Your task to perform on an android device: turn on showing notifications on the lock screen Image 0: 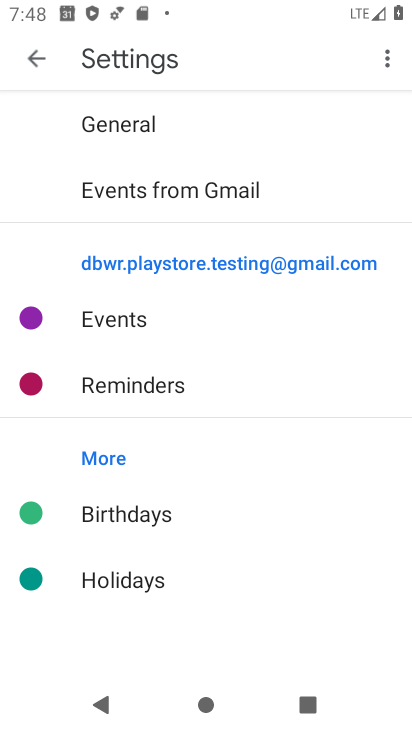
Step 0: press home button
Your task to perform on an android device: turn on showing notifications on the lock screen Image 1: 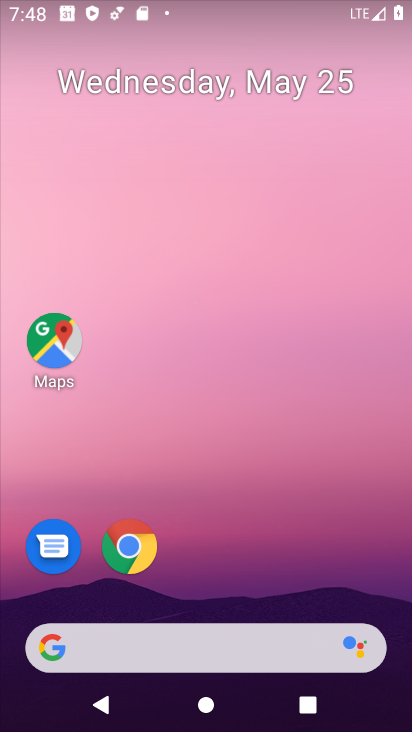
Step 1: drag from (374, 585) to (388, 251)
Your task to perform on an android device: turn on showing notifications on the lock screen Image 2: 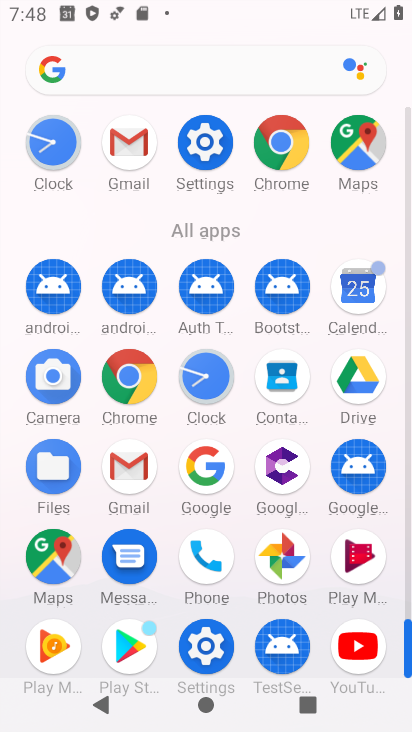
Step 2: click (212, 655)
Your task to perform on an android device: turn on showing notifications on the lock screen Image 3: 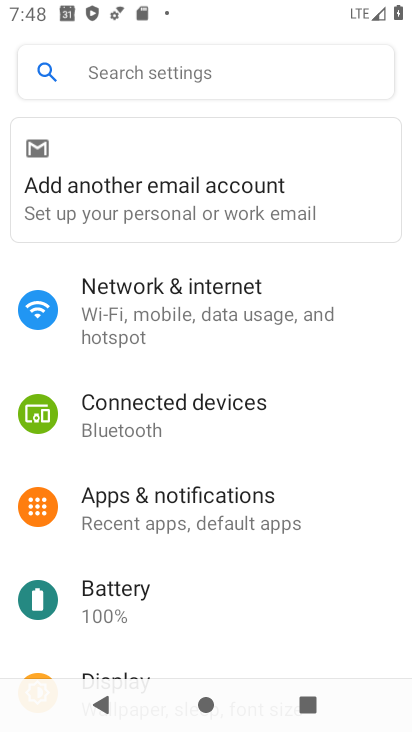
Step 3: drag from (346, 513) to (355, 417)
Your task to perform on an android device: turn on showing notifications on the lock screen Image 4: 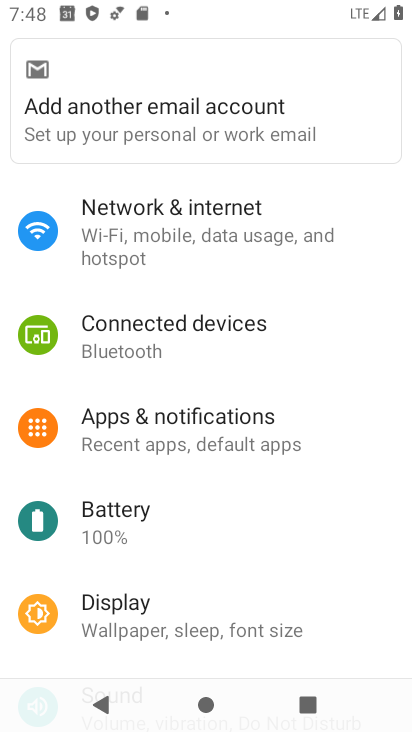
Step 4: drag from (358, 544) to (363, 435)
Your task to perform on an android device: turn on showing notifications on the lock screen Image 5: 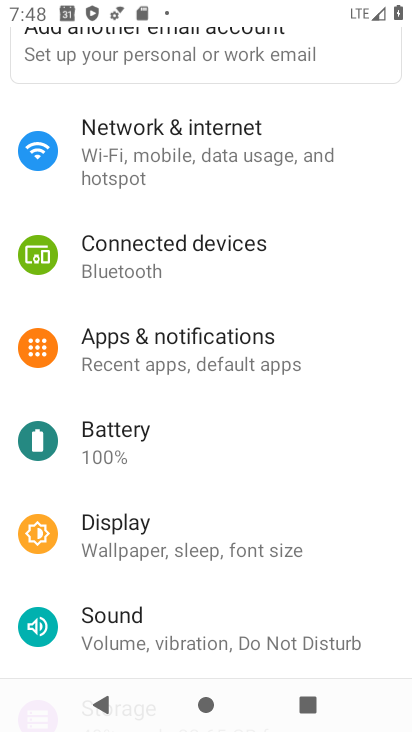
Step 5: drag from (354, 524) to (355, 449)
Your task to perform on an android device: turn on showing notifications on the lock screen Image 6: 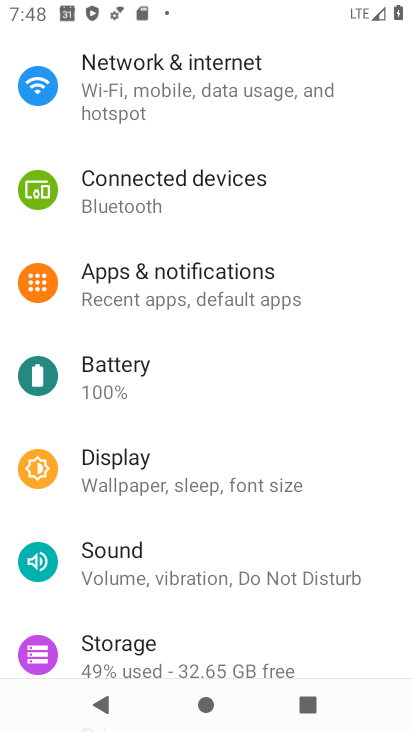
Step 6: drag from (345, 520) to (350, 464)
Your task to perform on an android device: turn on showing notifications on the lock screen Image 7: 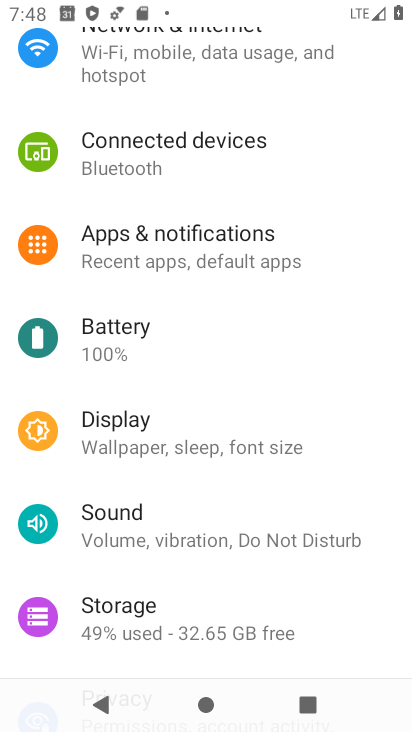
Step 7: drag from (349, 570) to (343, 474)
Your task to perform on an android device: turn on showing notifications on the lock screen Image 8: 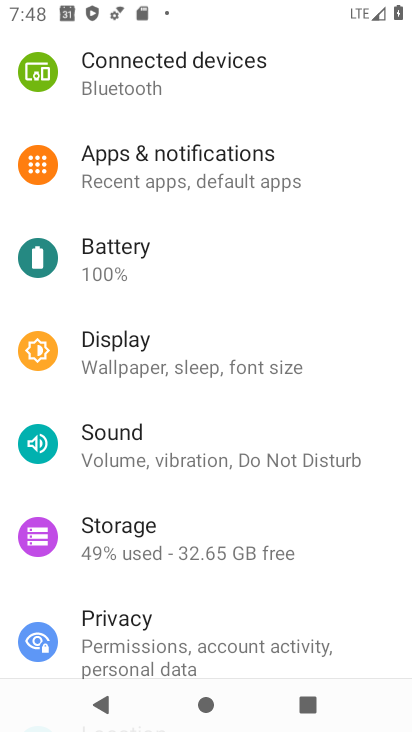
Step 8: drag from (334, 569) to (345, 481)
Your task to perform on an android device: turn on showing notifications on the lock screen Image 9: 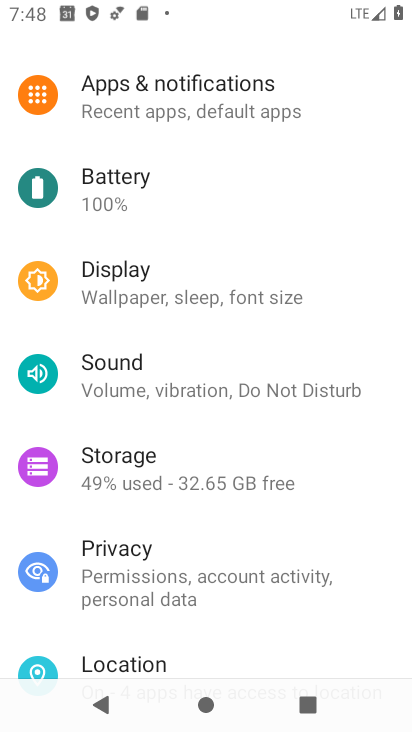
Step 9: drag from (347, 562) to (359, 389)
Your task to perform on an android device: turn on showing notifications on the lock screen Image 10: 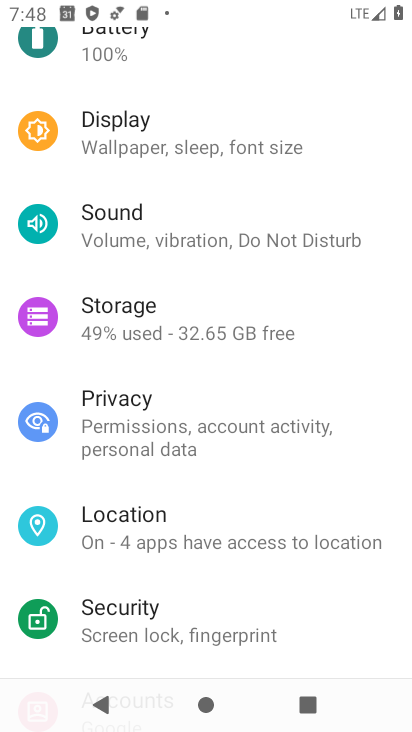
Step 10: drag from (345, 579) to (346, 427)
Your task to perform on an android device: turn on showing notifications on the lock screen Image 11: 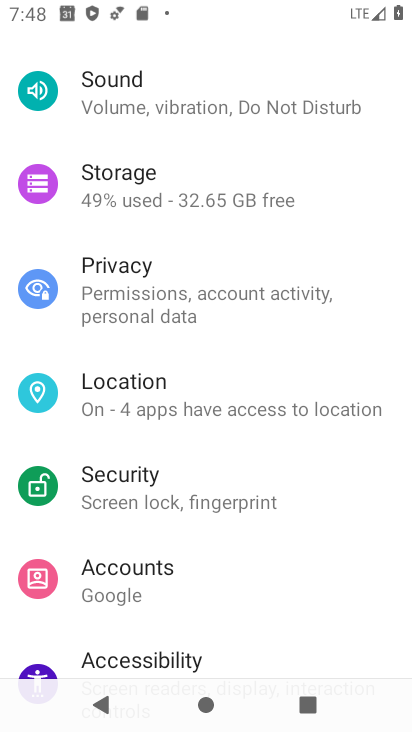
Step 11: drag from (362, 286) to (361, 396)
Your task to perform on an android device: turn on showing notifications on the lock screen Image 12: 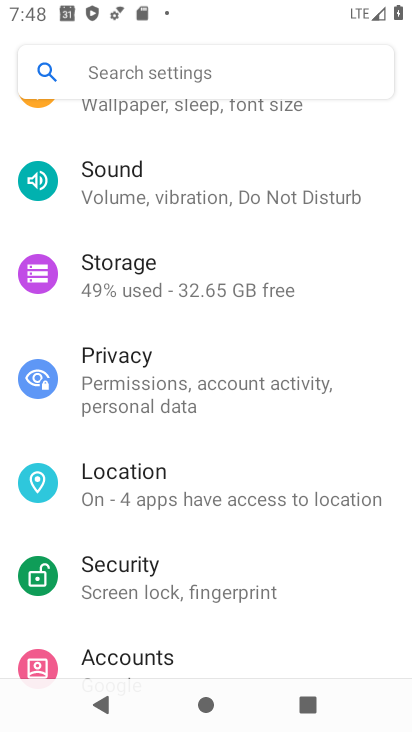
Step 12: drag from (359, 267) to (355, 388)
Your task to perform on an android device: turn on showing notifications on the lock screen Image 13: 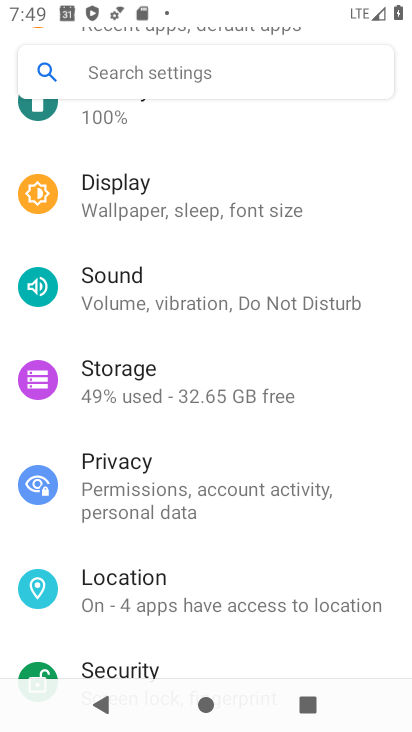
Step 13: drag from (378, 272) to (376, 373)
Your task to perform on an android device: turn on showing notifications on the lock screen Image 14: 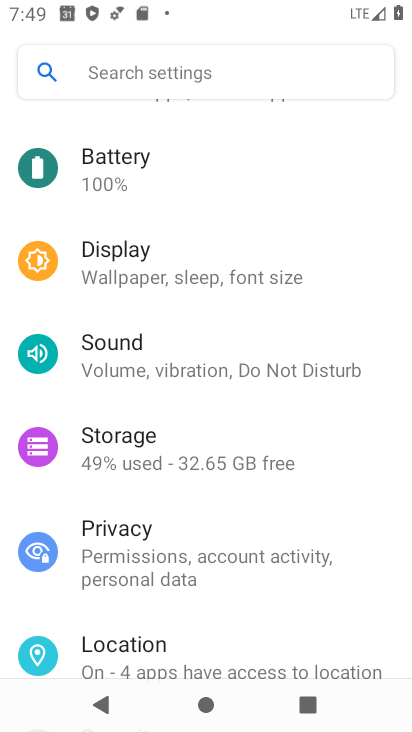
Step 14: drag from (372, 247) to (365, 354)
Your task to perform on an android device: turn on showing notifications on the lock screen Image 15: 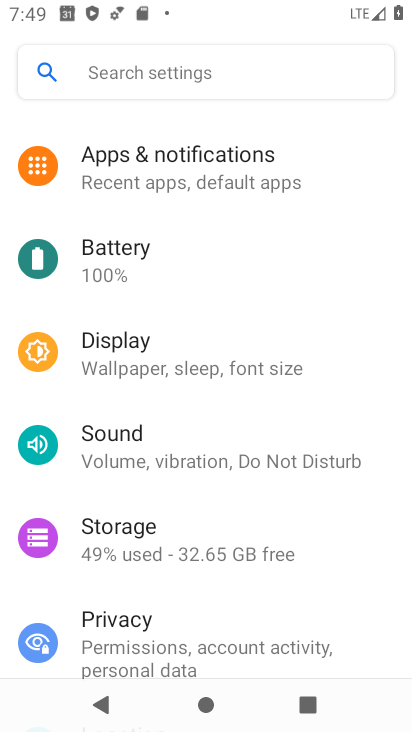
Step 15: drag from (370, 242) to (366, 334)
Your task to perform on an android device: turn on showing notifications on the lock screen Image 16: 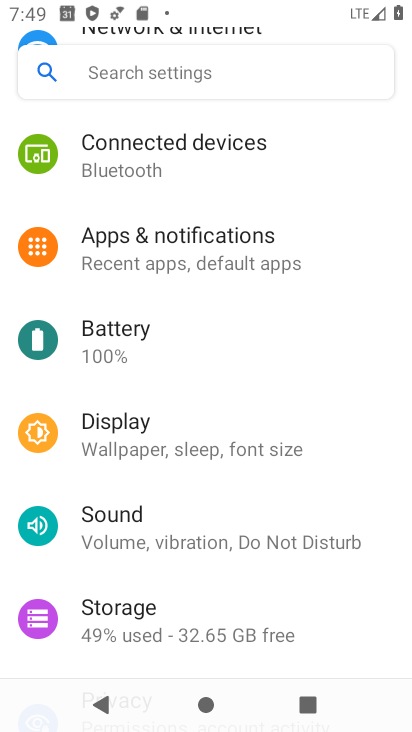
Step 16: drag from (362, 217) to (370, 320)
Your task to perform on an android device: turn on showing notifications on the lock screen Image 17: 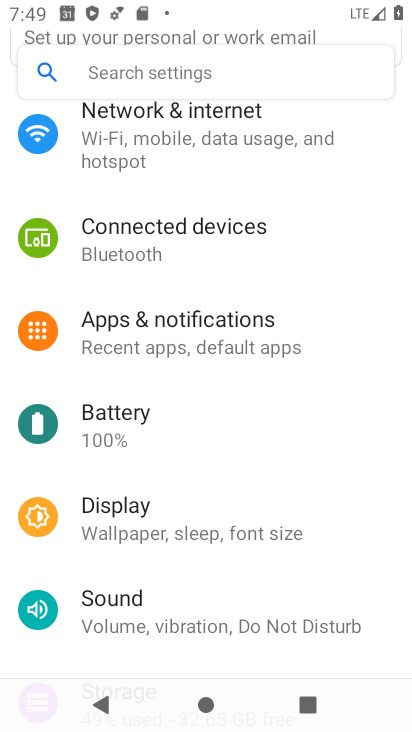
Step 17: drag from (368, 242) to (360, 351)
Your task to perform on an android device: turn on showing notifications on the lock screen Image 18: 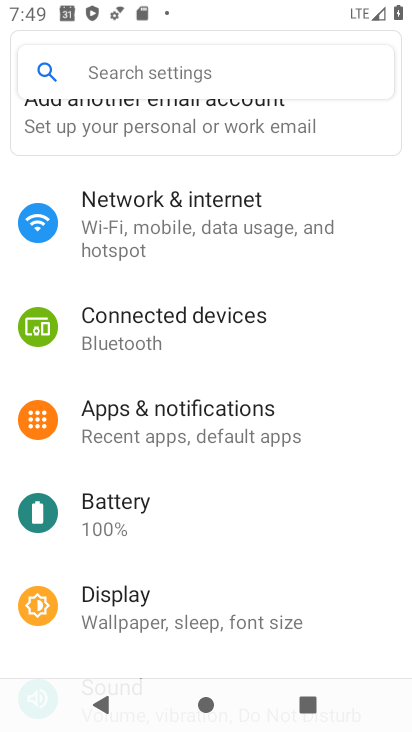
Step 18: click (286, 435)
Your task to perform on an android device: turn on showing notifications on the lock screen Image 19: 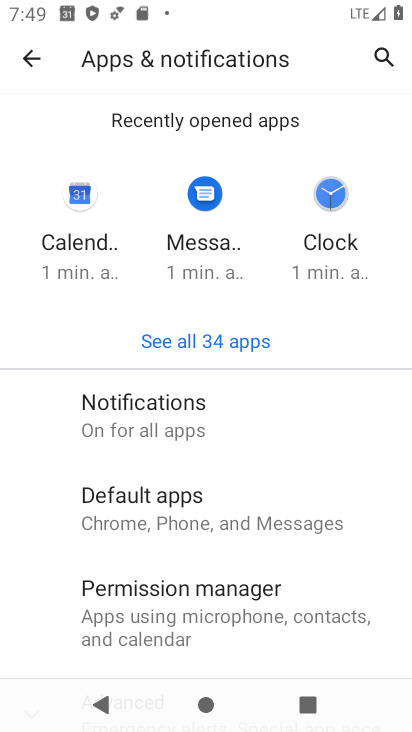
Step 19: click (196, 428)
Your task to perform on an android device: turn on showing notifications on the lock screen Image 20: 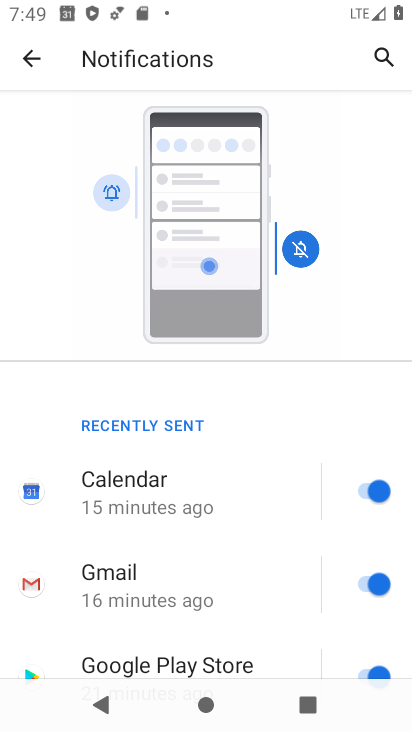
Step 20: drag from (249, 498) to (258, 408)
Your task to perform on an android device: turn on showing notifications on the lock screen Image 21: 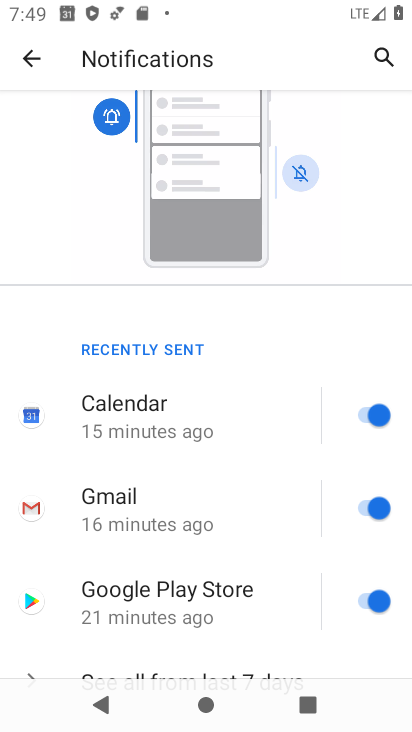
Step 21: drag from (274, 518) to (289, 428)
Your task to perform on an android device: turn on showing notifications on the lock screen Image 22: 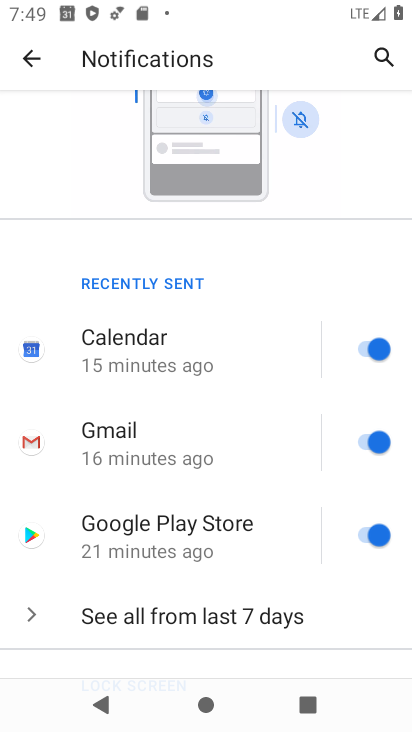
Step 22: drag from (281, 540) to (276, 452)
Your task to perform on an android device: turn on showing notifications on the lock screen Image 23: 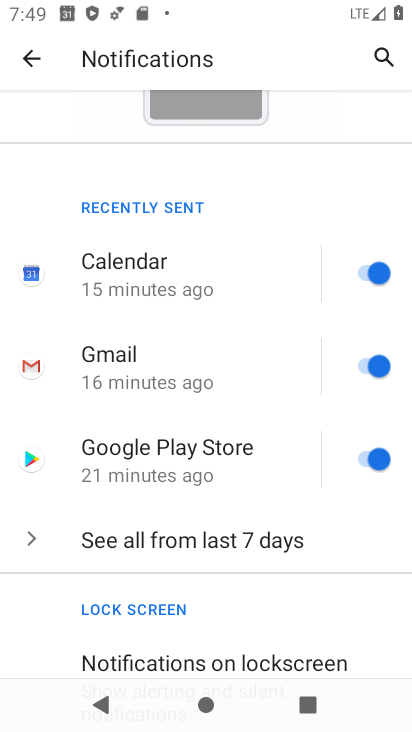
Step 23: drag from (270, 558) to (281, 472)
Your task to perform on an android device: turn on showing notifications on the lock screen Image 24: 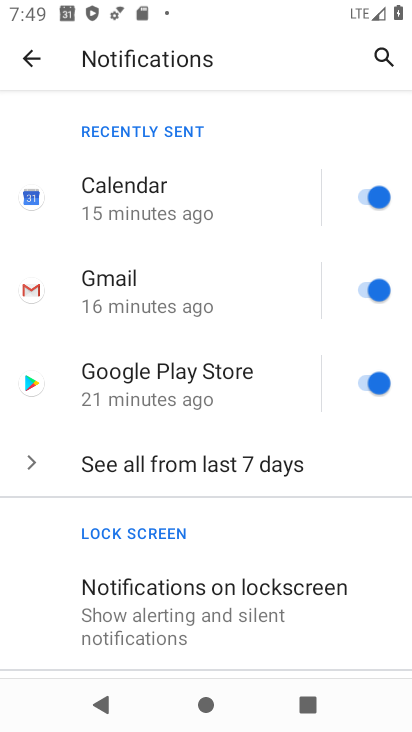
Step 24: drag from (261, 548) to (261, 449)
Your task to perform on an android device: turn on showing notifications on the lock screen Image 25: 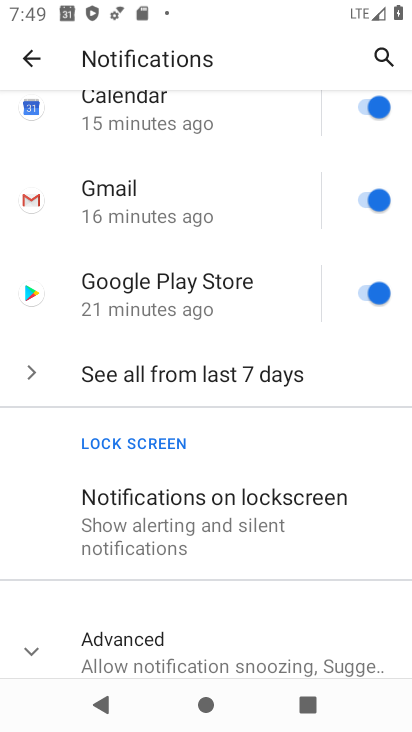
Step 25: drag from (273, 582) to (282, 459)
Your task to perform on an android device: turn on showing notifications on the lock screen Image 26: 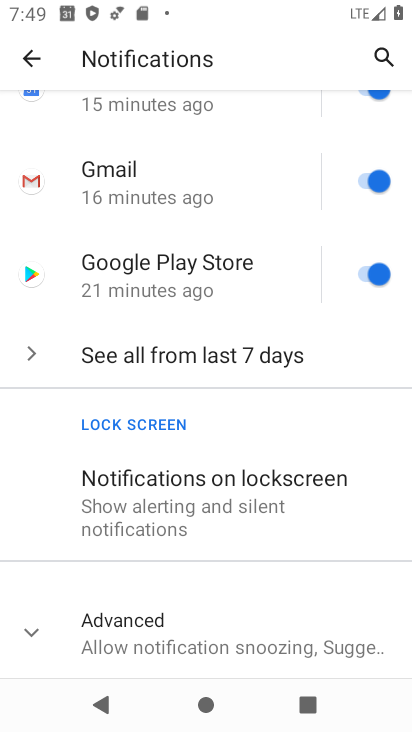
Step 26: click (254, 505)
Your task to perform on an android device: turn on showing notifications on the lock screen Image 27: 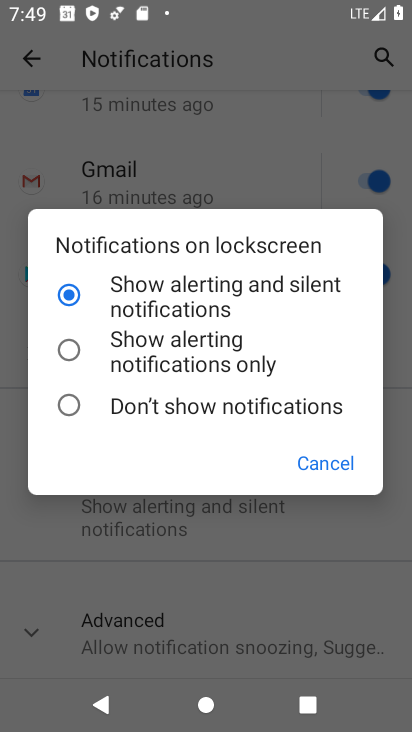
Step 27: task complete